Your task to perform on an android device: Turn on the flashlight Image 0: 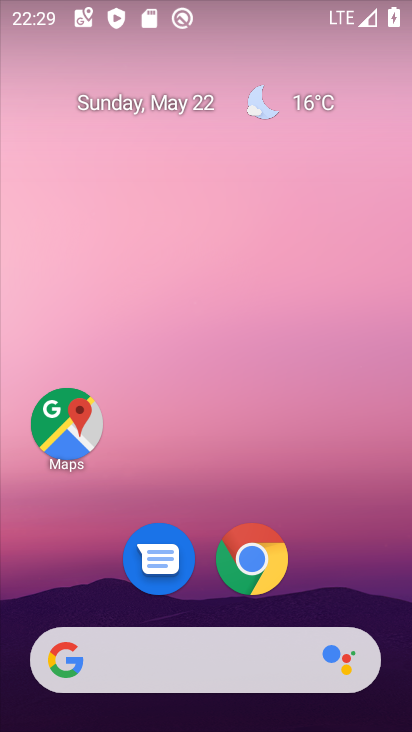
Step 0: drag from (253, 688) to (304, 326)
Your task to perform on an android device: Turn on the flashlight Image 1: 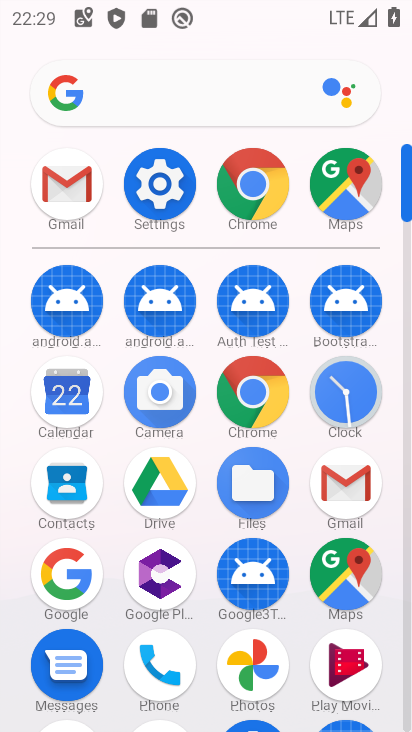
Step 1: click (156, 185)
Your task to perform on an android device: Turn on the flashlight Image 2: 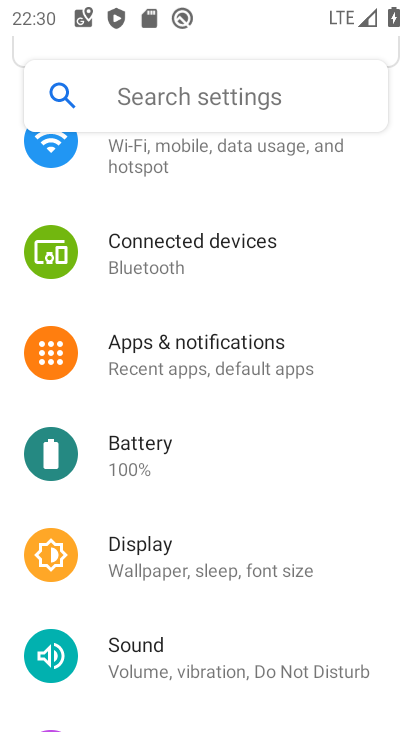
Step 2: click (166, 98)
Your task to perform on an android device: Turn on the flashlight Image 3: 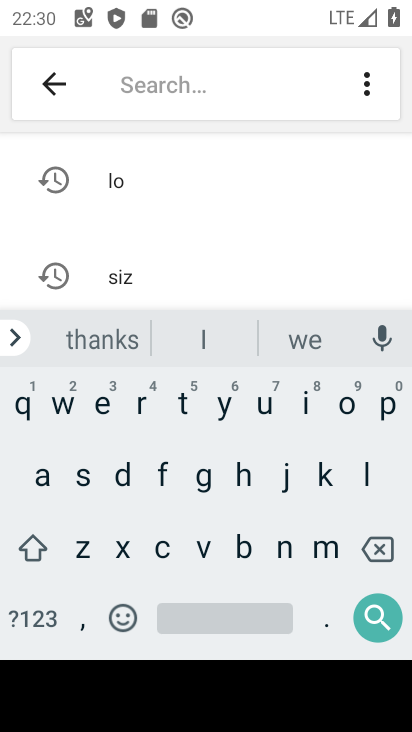
Step 3: click (169, 466)
Your task to perform on an android device: Turn on the flashlight Image 4: 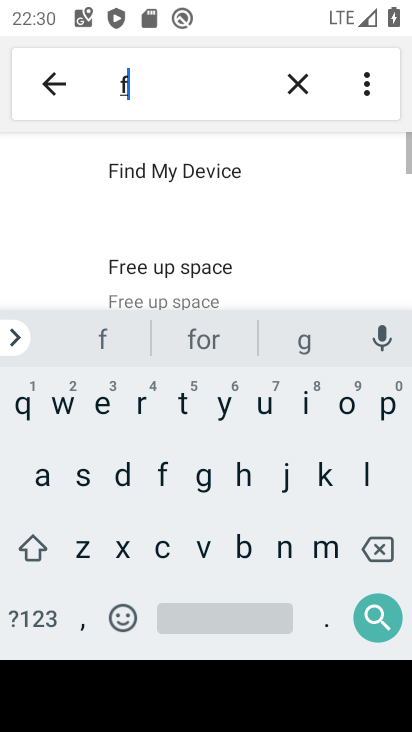
Step 4: click (367, 473)
Your task to perform on an android device: Turn on the flashlight Image 5: 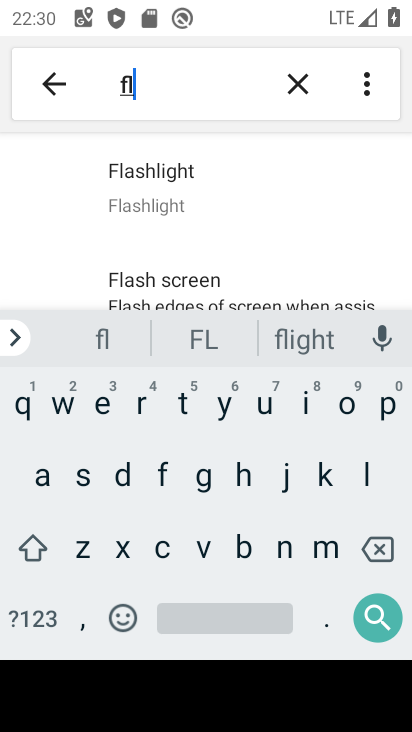
Step 5: click (159, 138)
Your task to perform on an android device: Turn on the flashlight Image 6: 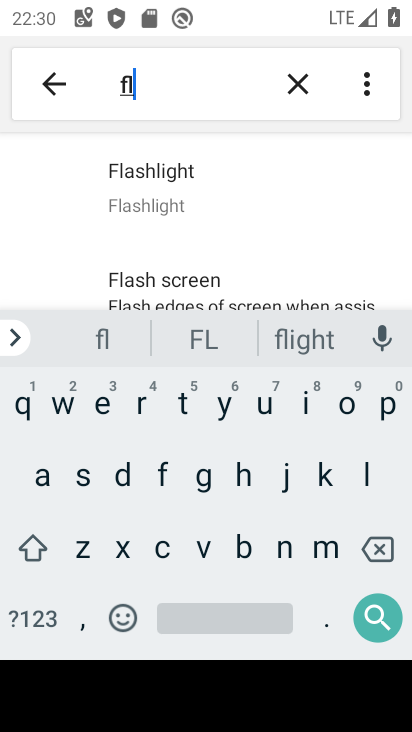
Step 6: click (151, 180)
Your task to perform on an android device: Turn on the flashlight Image 7: 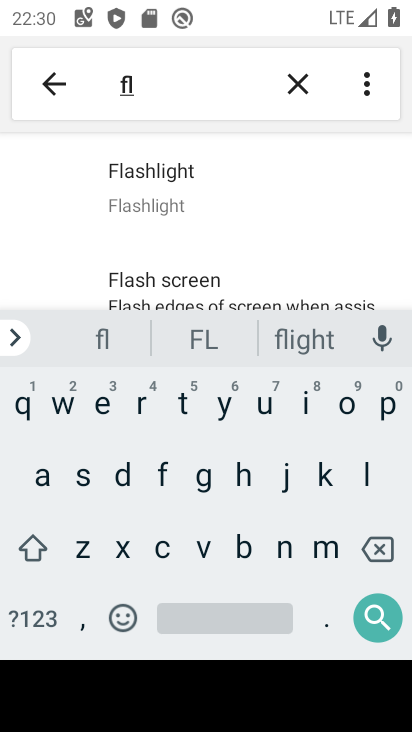
Step 7: task complete